Your task to perform on an android device: toggle notification dots Image 0: 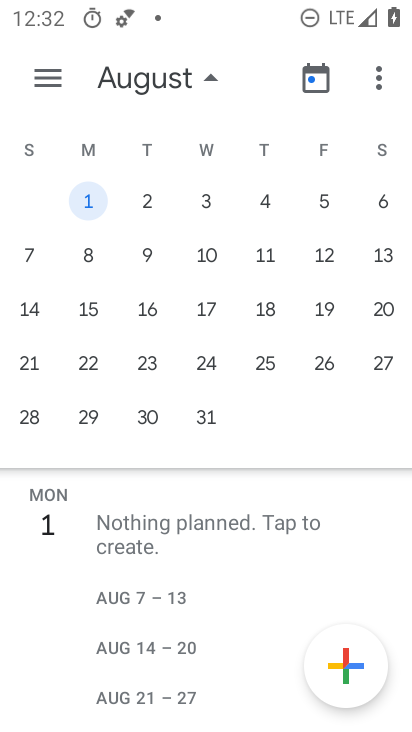
Step 0: press back button
Your task to perform on an android device: toggle notification dots Image 1: 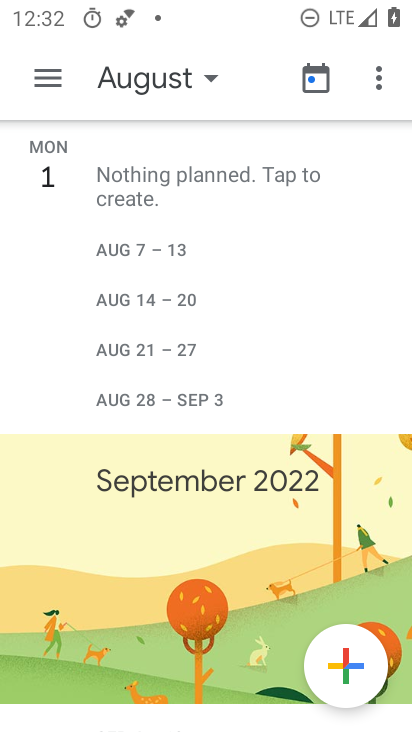
Step 1: press back button
Your task to perform on an android device: toggle notification dots Image 2: 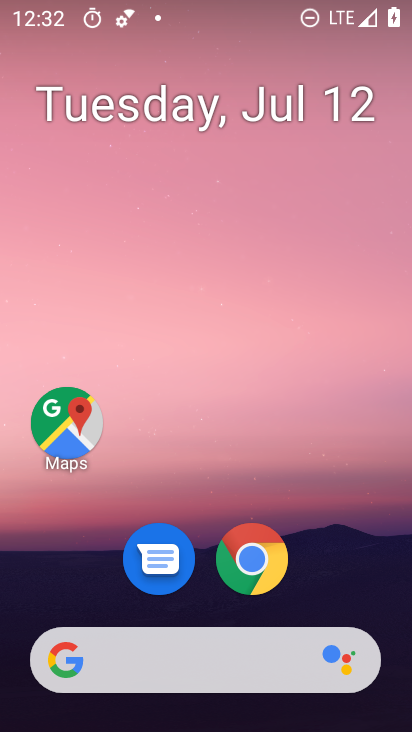
Step 2: drag from (207, 644) to (283, 19)
Your task to perform on an android device: toggle notification dots Image 3: 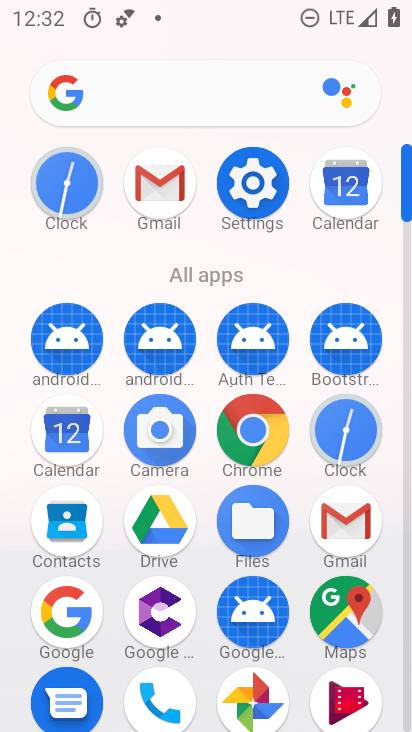
Step 3: click (251, 193)
Your task to perform on an android device: toggle notification dots Image 4: 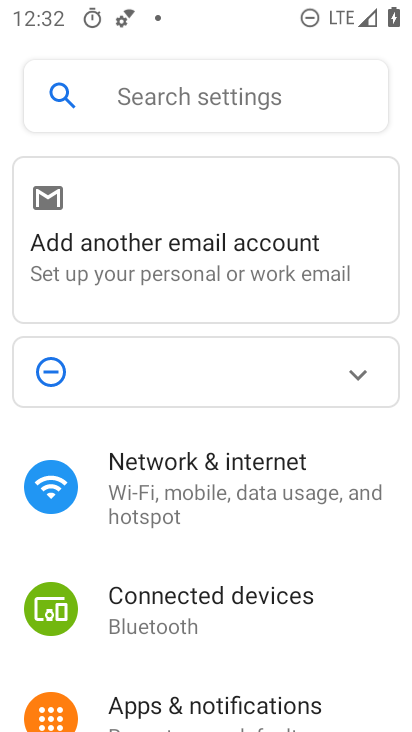
Step 4: click (181, 704)
Your task to perform on an android device: toggle notification dots Image 5: 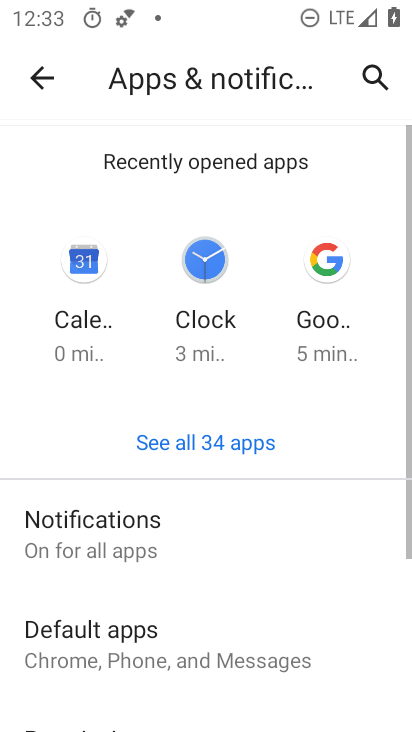
Step 5: click (143, 547)
Your task to perform on an android device: toggle notification dots Image 6: 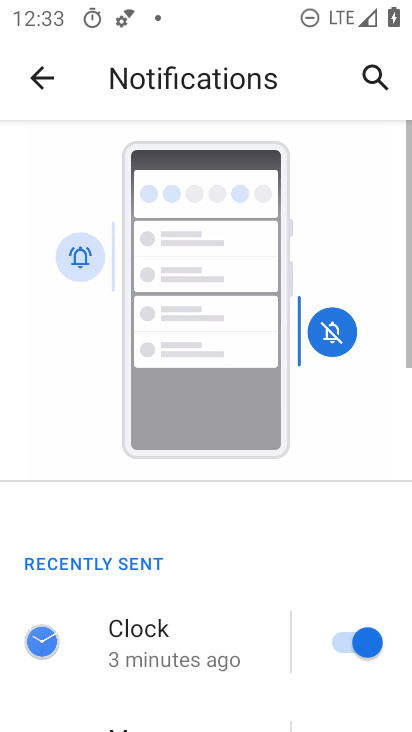
Step 6: drag from (152, 648) to (260, 43)
Your task to perform on an android device: toggle notification dots Image 7: 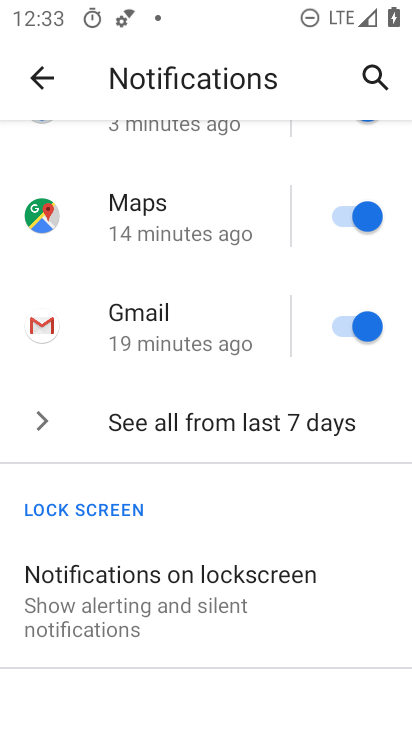
Step 7: drag from (198, 669) to (191, 133)
Your task to perform on an android device: toggle notification dots Image 8: 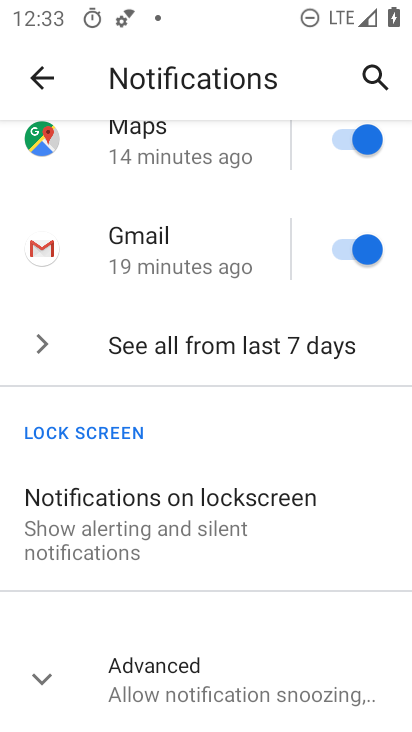
Step 8: click (173, 675)
Your task to perform on an android device: toggle notification dots Image 9: 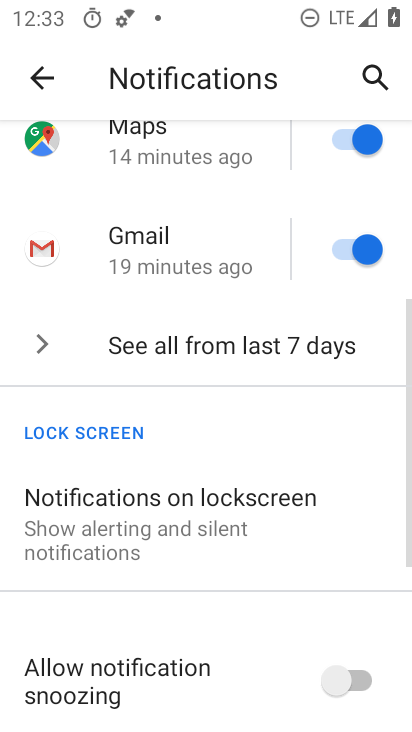
Step 9: drag from (199, 676) to (234, 268)
Your task to perform on an android device: toggle notification dots Image 10: 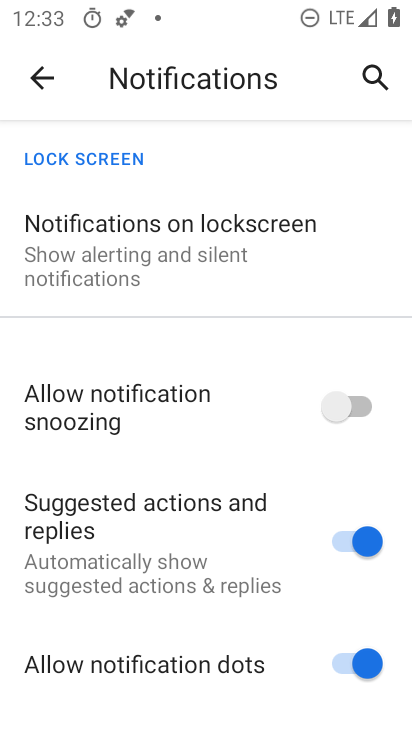
Step 10: click (361, 664)
Your task to perform on an android device: toggle notification dots Image 11: 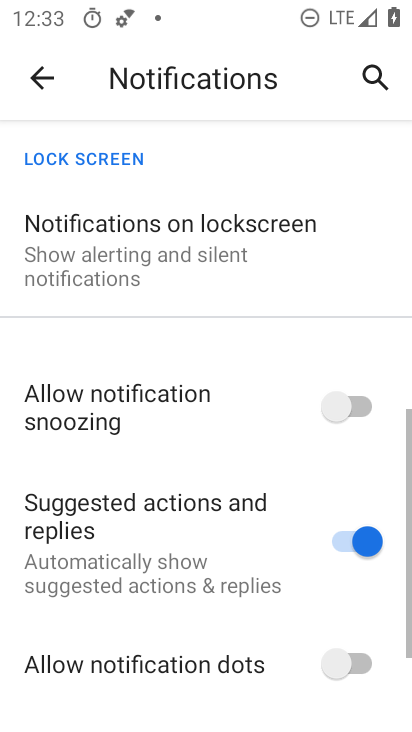
Step 11: task complete